Your task to perform on an android device: turn off javascript in the chrome app Image 0: 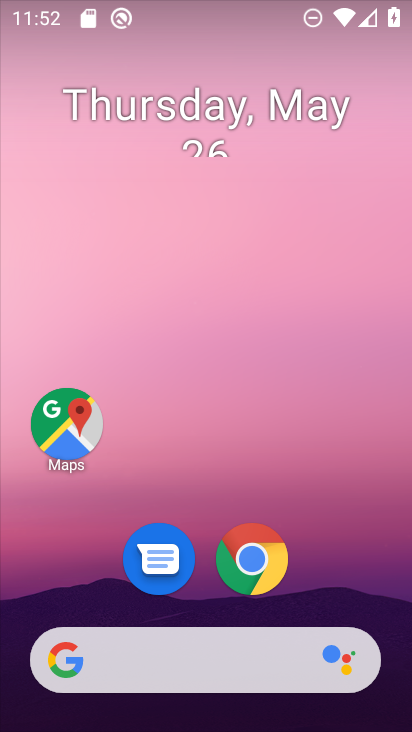
Step 0: click (278, 554)
Your task to perform on an android device: turn off javascript in the chrome app Image 1: 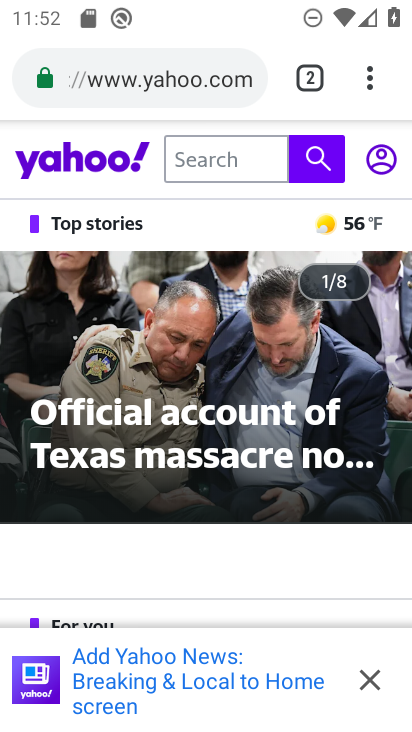
Step 1: click (377, 72)
Your task to perform on an android device: turn off javascript in the chrome app Image 2: 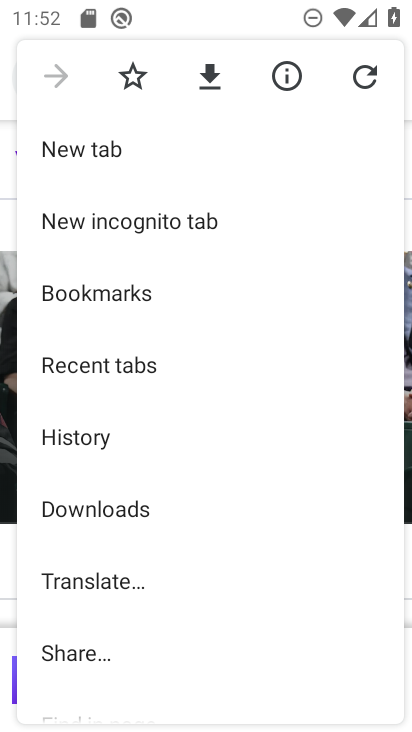
Step 2: drag from (193, 629) to (225, 156)
Your task to perform on an android device: turn off javascript in the chrome app Image 3: 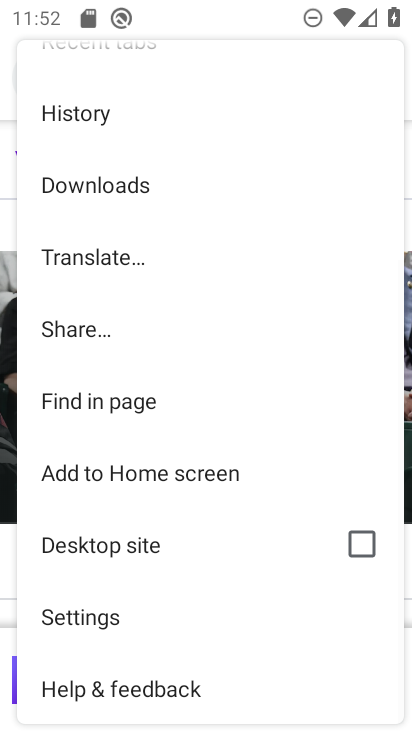
Step 3: click (113, 612)
Your task to perform on an android device: turn off javascript in the chrome app Image 4: 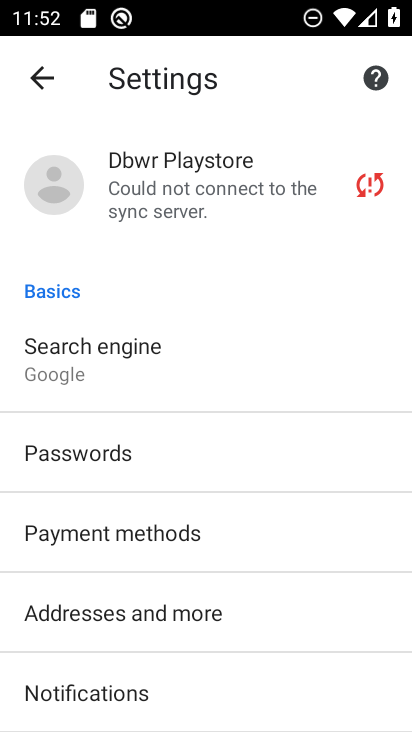
Step 4: drag from (267, 671) to (318, 271)
Your task to perform on an android device: turn off javascript in the chrome app Image 5: 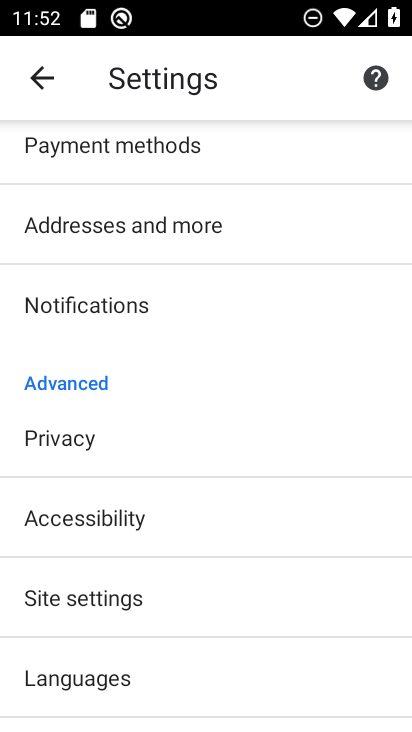
Step 5: click (126, 600)
Your task to perform on an android device: turn off javascript in the chrome app Image 6: 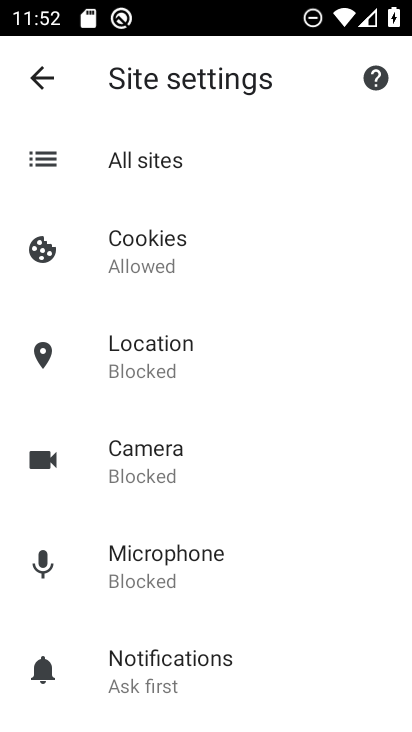
Step 6: drag from (263, 664) to (257, 249)
Your task to perform on an android device: turn off javascript in the chrome app Image 7: 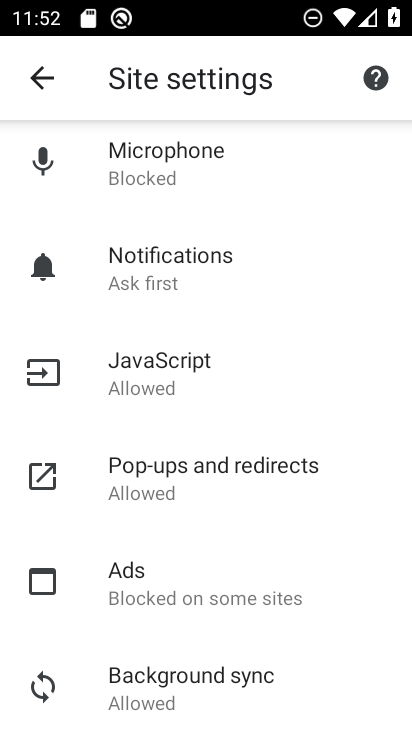
Step 7: click (180, 382)
Your task to perform on an android device: turn off javascript in the chrome app Image 8: 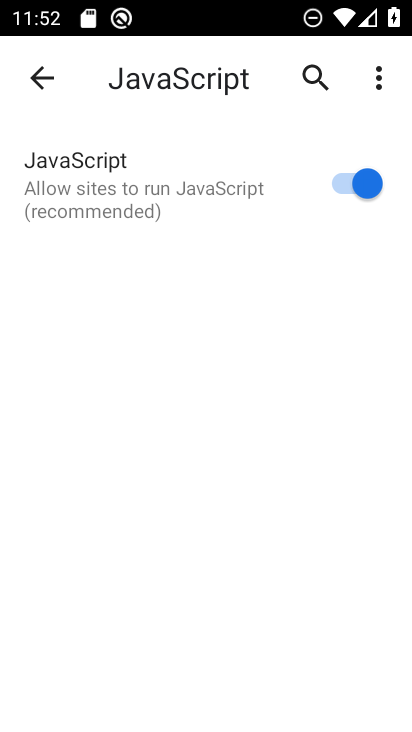
Step 8: click (323, 173)
Your task to perform on an android device: turn off javascript in the chrome app Image 9: 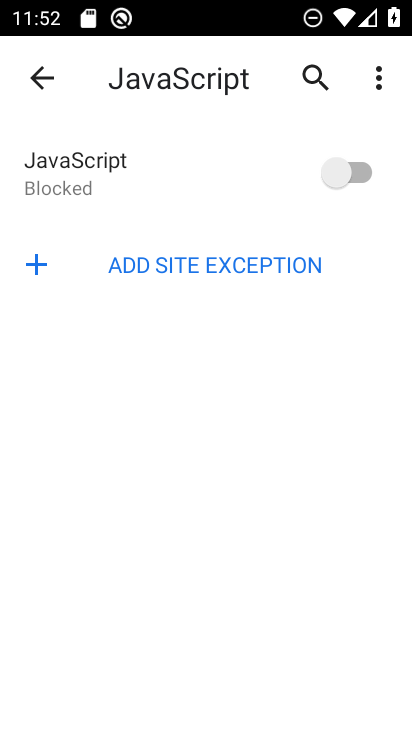
Step 9: task complete